Your task to perform on an android device: toggle data saver in the chrome app Image 0: 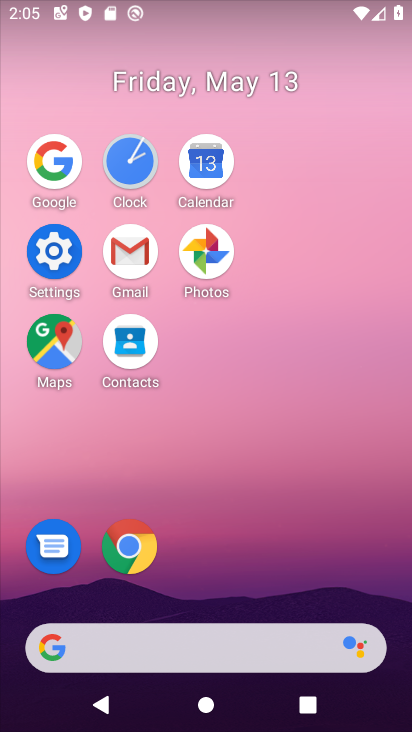
Step 0: click (124, 544)
Your task to perform on an android device: toggle data saver in the chrome app Image 1: 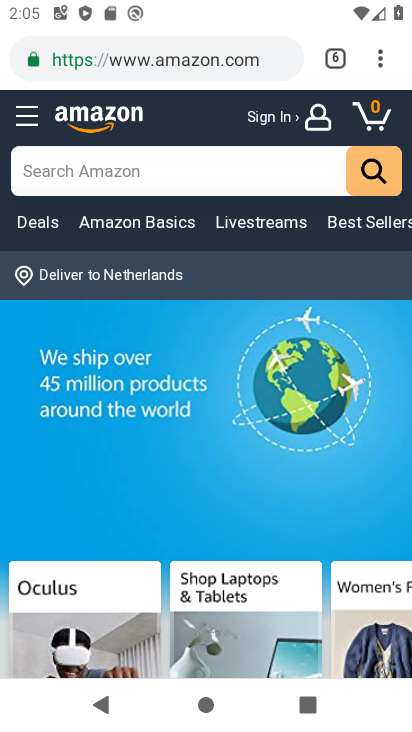
Step 1: click (373, 62)
Your task to perform on an android device: toggle data saver in the chrome app Image 2: 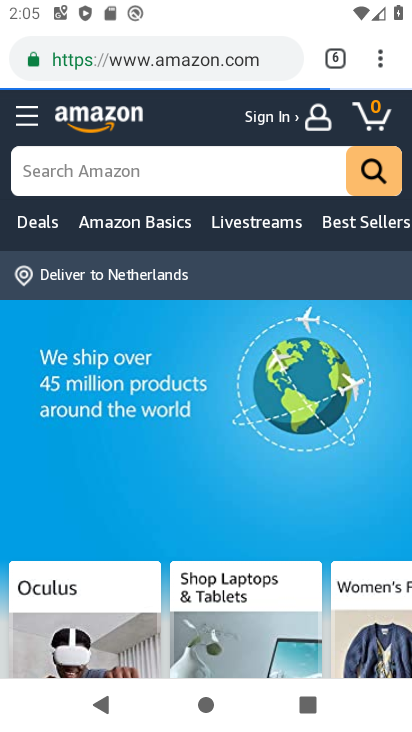
Step 2: click (378, 62)
Your task to perform on an android device: toggle data saver in the chrome app Image 3: 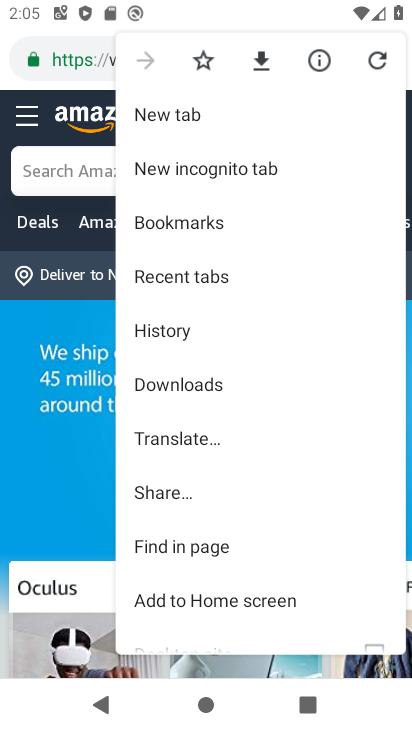
Step 3: drag from (269, 522) to (338, 192)
Your task to perform on an android device: toggle data saver in the chrome app Image 4: 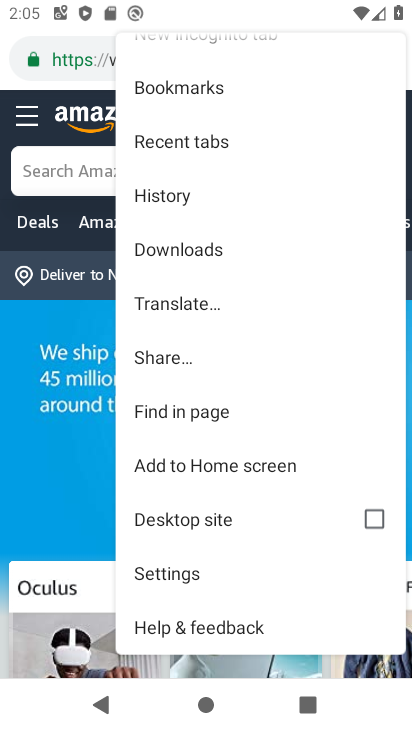
Step 4: click (216, 561)
Your task to perform on an android device: toggle data saver in the chrome app Image 5: 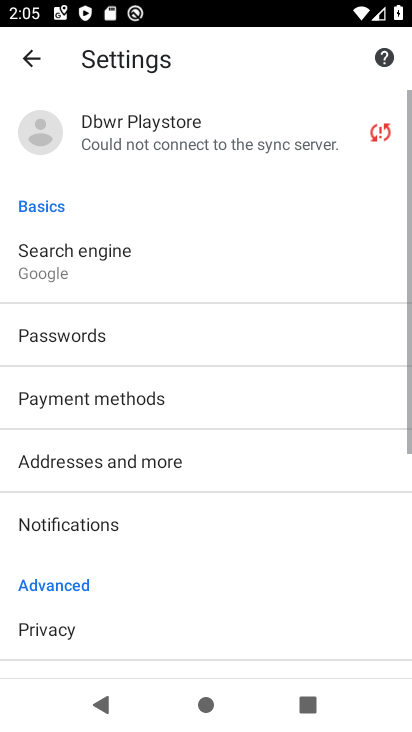
Step 5: drag from (299, 541) to (360, 202)
Your task to perform on an android device: toggle data saver in the chrome app Image 6: 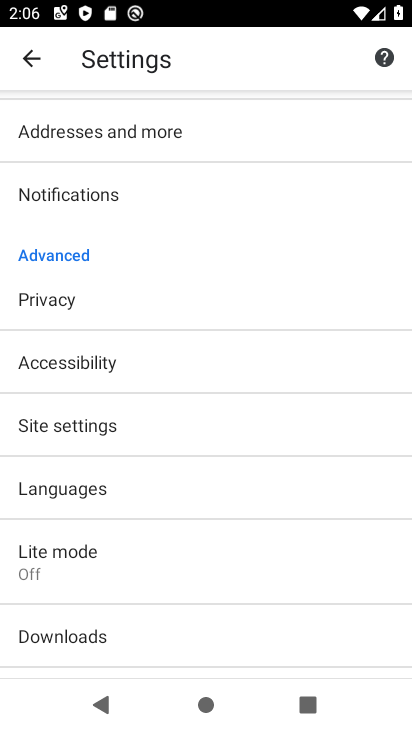
Step 6: click (161, 580)
Your task to perform on an android device: toggle data saver in the chrome app Image 7: 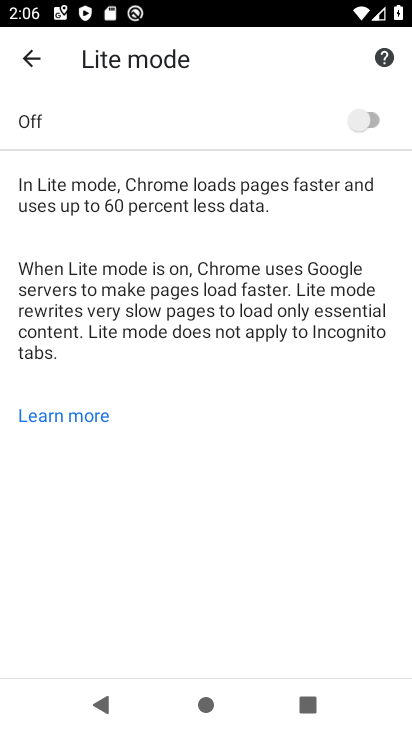
Step 7: click (383, 128)
Your task to perform on an android device: toggle data saver in the chrome app Image 8: 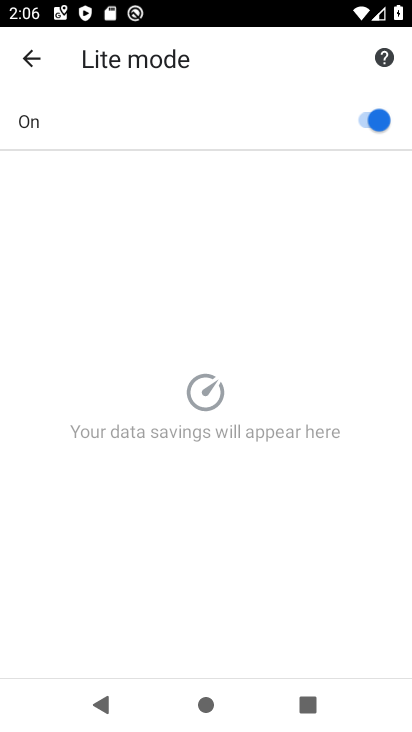
Step 8: task complete